Your task to perform on an android device: allow notifications from all sites in the chrome app Image 0: 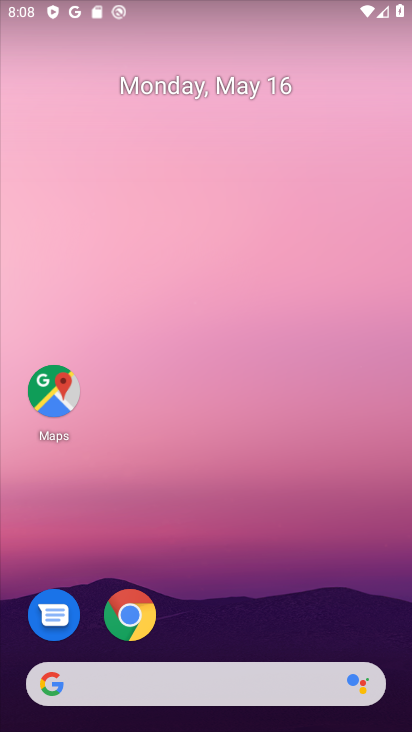
Step 0: drag from (30, 606) to (208, 129)
Your task to perform on an android device: allow notifications from all sites in the chrome app Image 1: 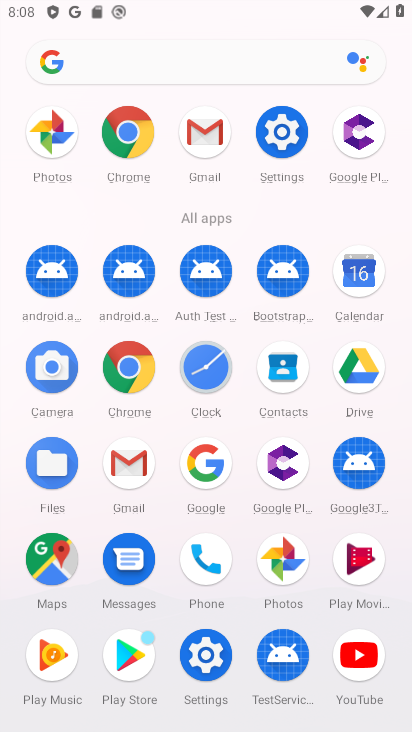
Step 1: click (121, 373)
Your task to perform on an android device: allow notifications from all sites in the chrome app Image 2: 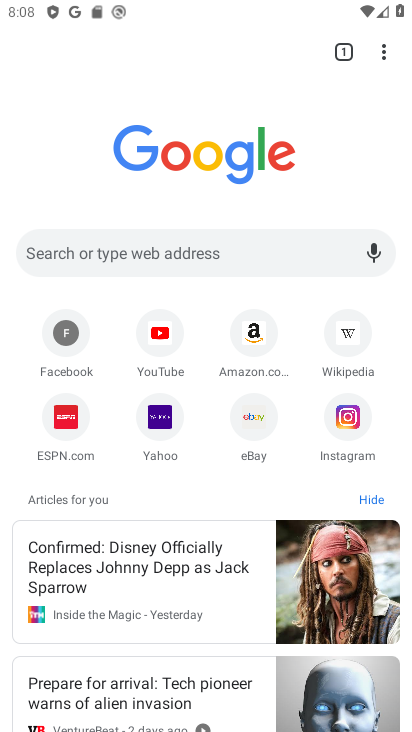
Step 2: click (384, 40)
Your task to perform on an android device: allow notifications from all sites in the chrome app Image 3: 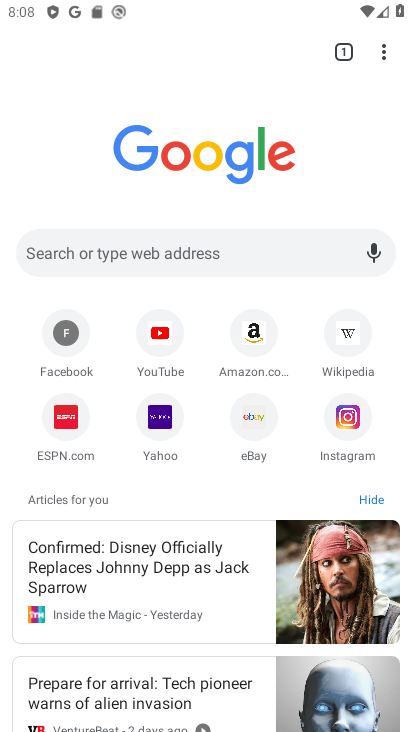
Step 3: click (378, 60)
Your task to perform on an android device: allow notifications from all sites in the chrome app Image 4: 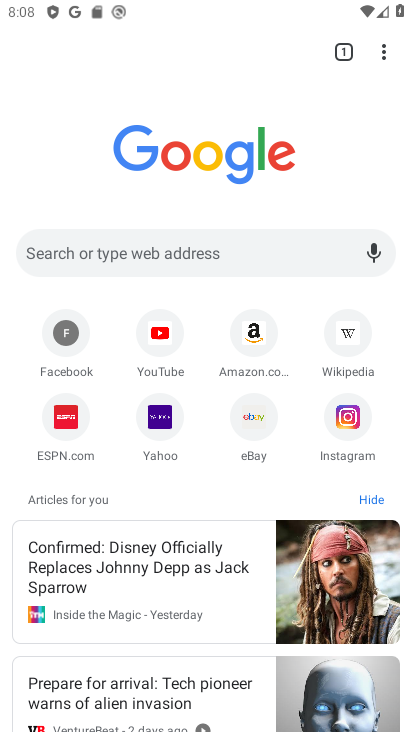
Step 4: click (380, 53)
Your task to perform on an android device: allow notifications from all sites in the chrome app Image 5: 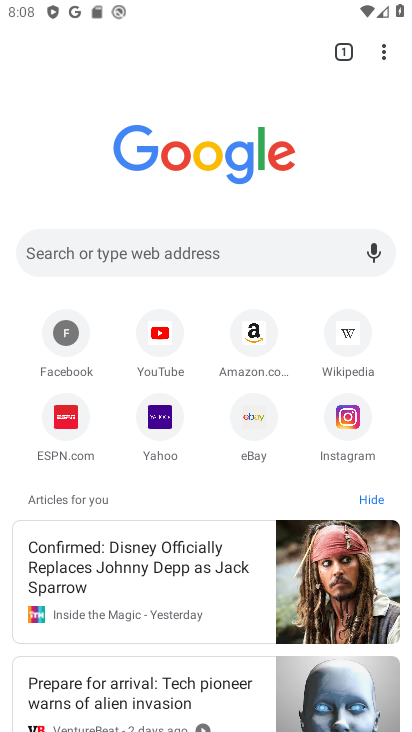
Step 5: click (383, 47)
Your task to perform on an android device: allow notifications from all sites in the chrome app Image 6: 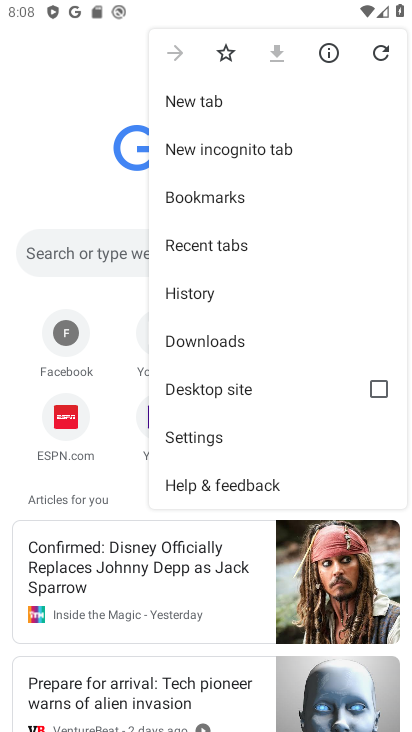
Step 6: click (198, 438)
Your task to perform on an android device: allow notifications from all sites in the chrome app Image 7: 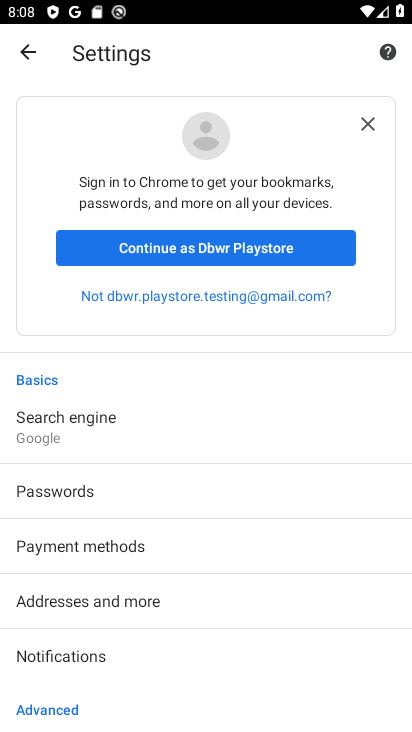
Step 7: drag from (7, 670) to (141, 219)
Your task to perform on an android device: allow notifications from all sites in the chrome app Image 8: 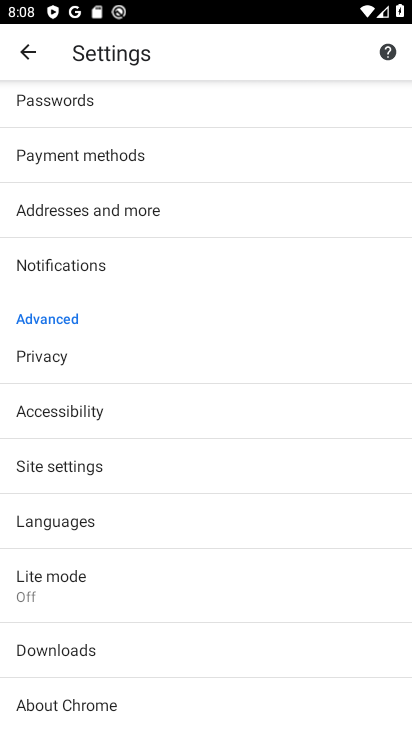
Step 8: click (82, 468)
Your task to perform on an android device: allow notifications from all sites in the chrome app Image 9: 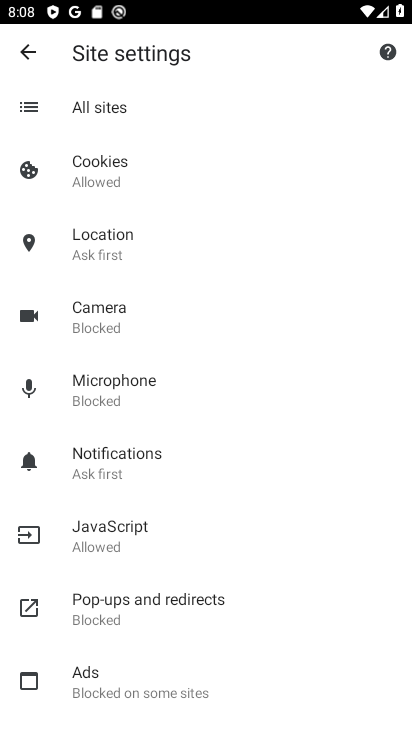
Step 9: drag from (100, 683) to (214, 291)
Your task to perform on an android device: allow notifications from all sites in the chrome app Image 10: 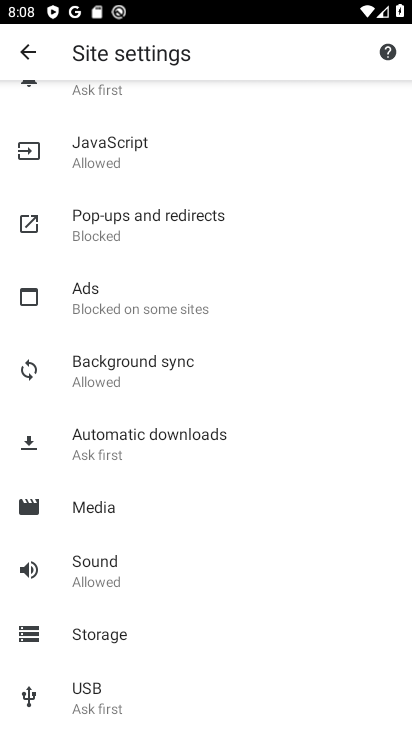
Step 10: drag from (91, 622) to (243, 191)
Your task to perform on an android device: allow notifications from all sites in the chrome app Image 11: 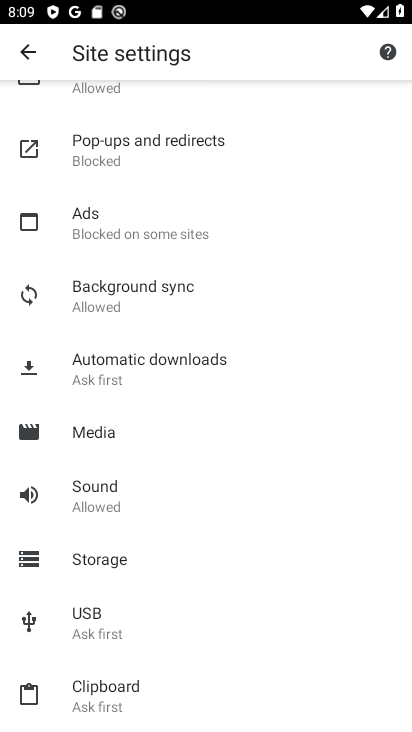
Step 11: drag from (261, 148) to (166, 695)
Your task to perform on an android device: allow notifications from all sites in the chrome app Image 12: 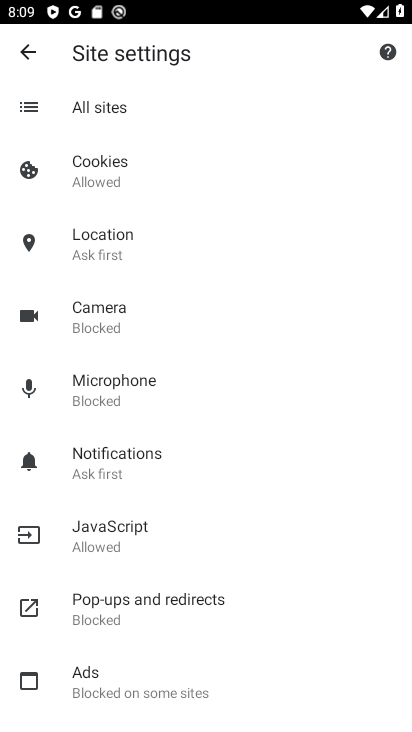
Step 12: click (111, 461)
Your task to perform on an android device: allow notifications from all sites in the chrome app Image 13: 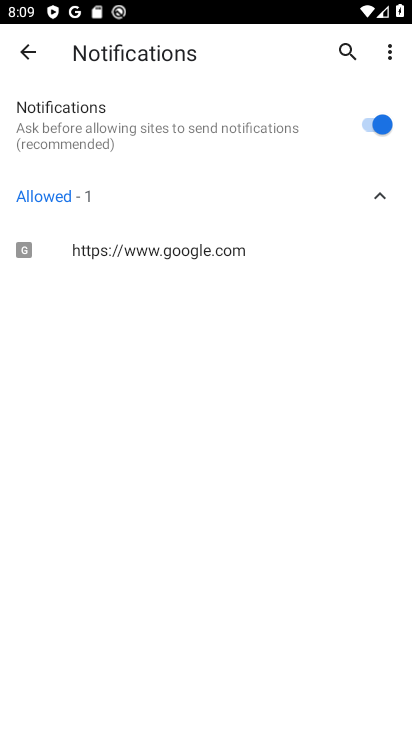
Step 13: task complete